Your task to perform on an android device: make emails show in primary in the gmail app Image 0: 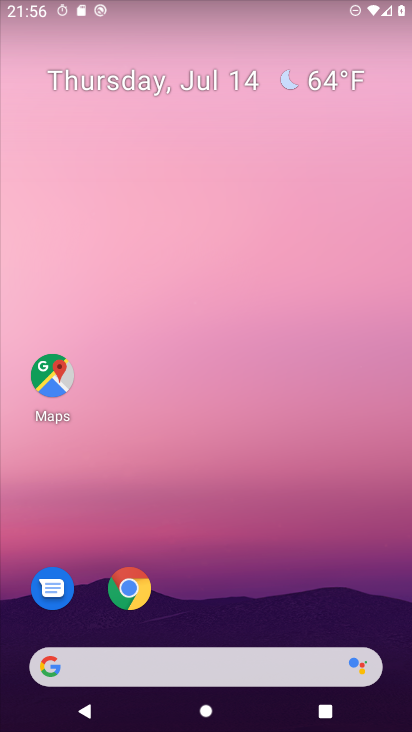
Step 0: drag from (263, 576) to (348, 76)
Your task to perform on an android device: make emails show in primary in the gmail app Image 1: 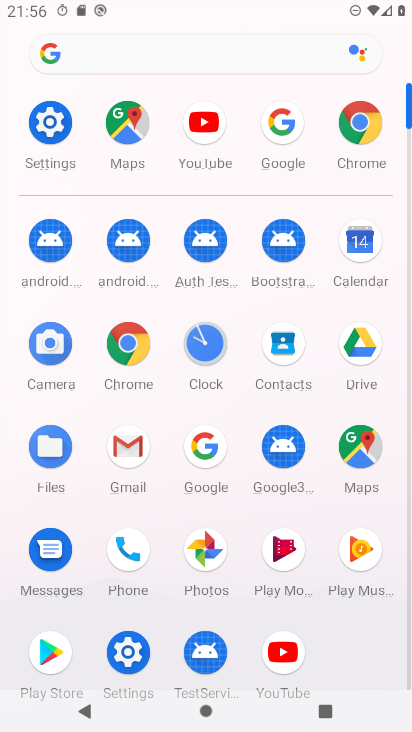
Step 1: click (134, 454)
Your task to perform on an android device: make emails show in primary in the gmail app Image 2: 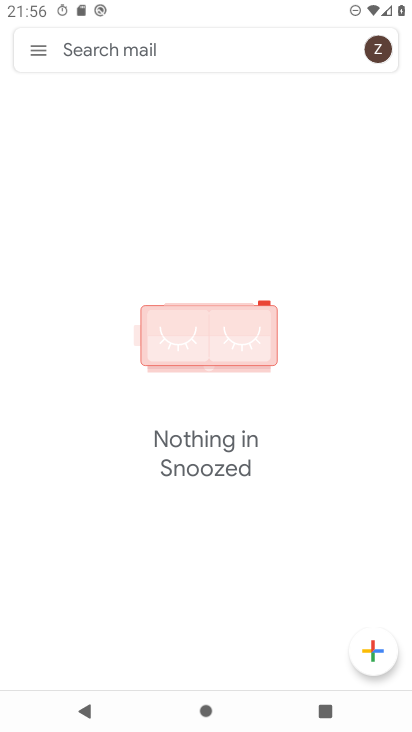
Step 2: click (39, 51)
Your task to perform on an android device: make emails show in primary in the gmail app Image 3: 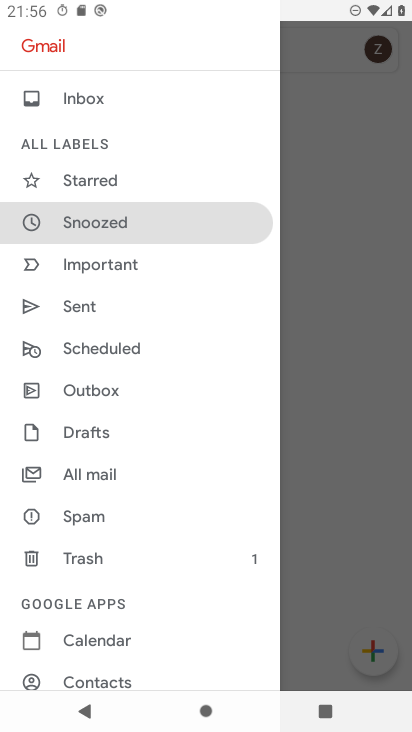
Step 3: drag from (183, 476) to (199, 421)
Your task to perform on an android device: make emails show in primary in the gmail app Image 4: 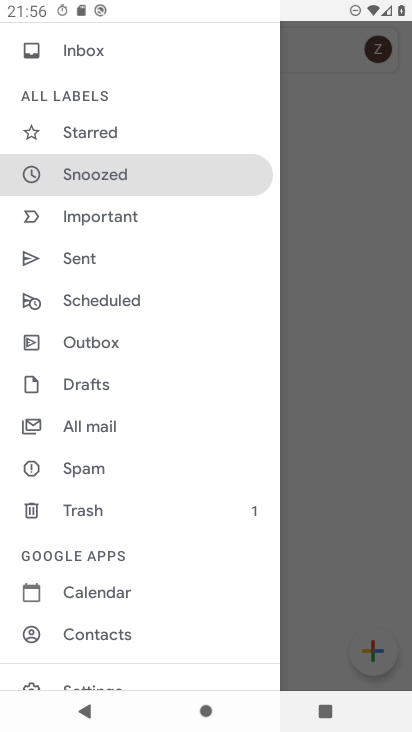
Step 4: drag from (206, 498) to (210, 423)
Your task to perform on an android device: make emails show in primary in the gmail app Image 5: 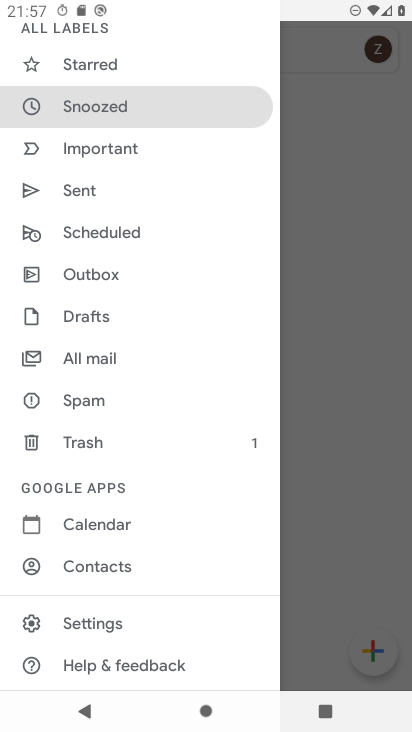
Step 5: drag from (205, 529) to (203, 413)
Your task to perform on an android device: make emails show in primary in the gmail app Image 6: 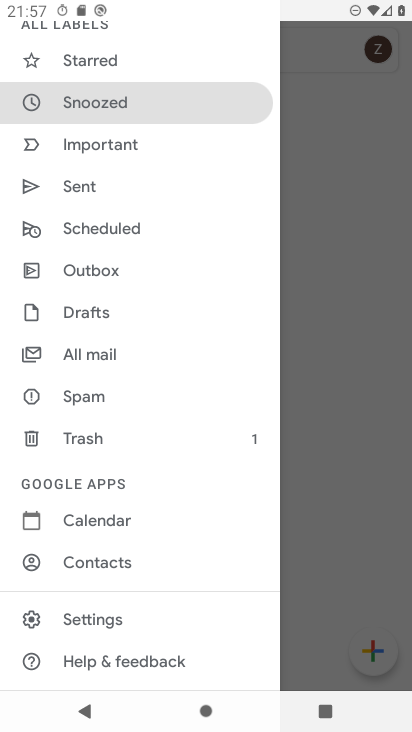
Step 6: click (172, 609)
Your task to perform on an android device: make emails show in primary in the gmail app Image 7: 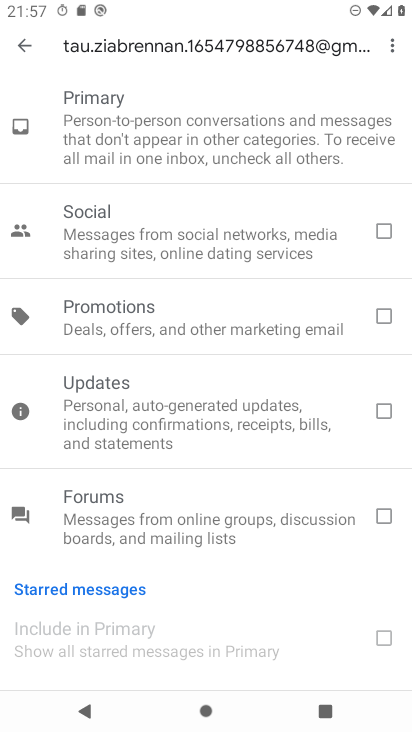
Step 7: task complete